Your task to perform on an android device: Do I have any events today? Image 0: 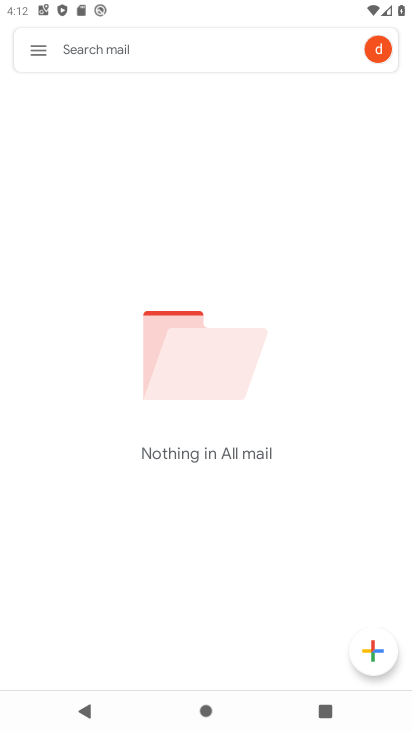
Step 0: press home button
Your task to perform on an android device: Do I have any events today? Image 1: 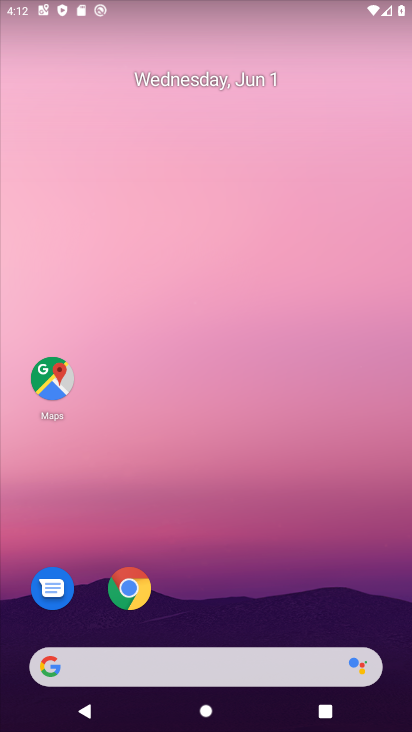
Step 1: drag from (243, 551) to (205, 208)
Your task to perform on an android device: Do I have any events today? Image 2: 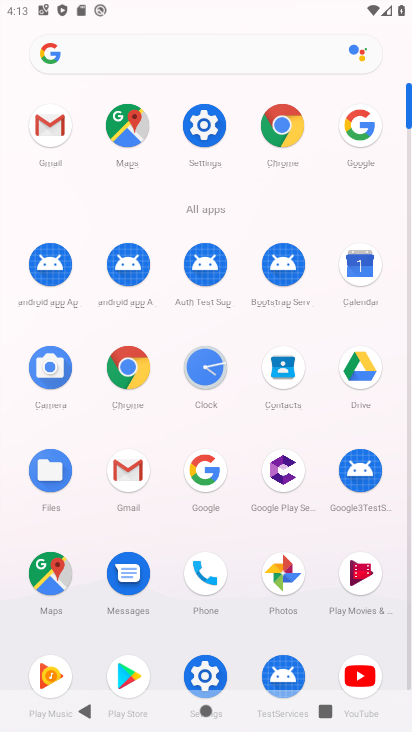
Step 2: click (357, 268)
Your task to perform on an android device: Do I have any events today? Image 3: 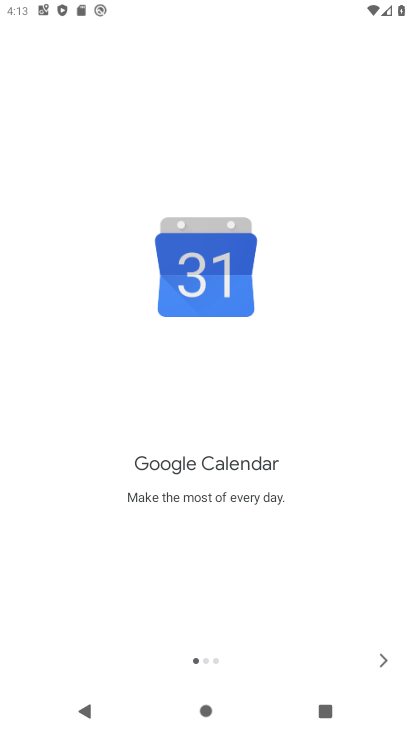
Step 3: click (379, 667)
Your task to perform on an android device: Do I have any events today? Image 4: 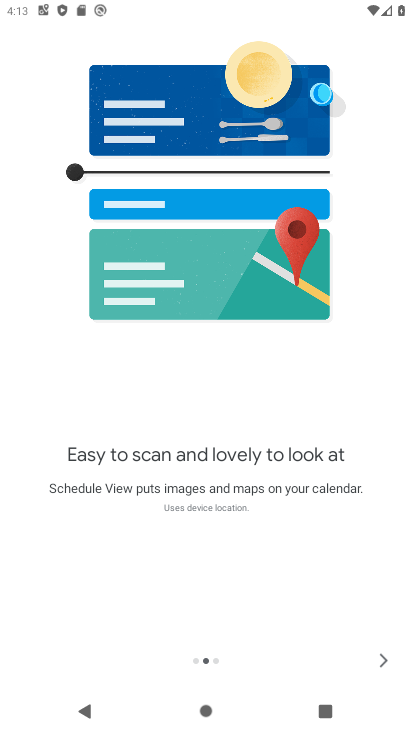
Step 4: click (379, 667)
Your task to perform on an android device: Do I have any events today? Image 5: 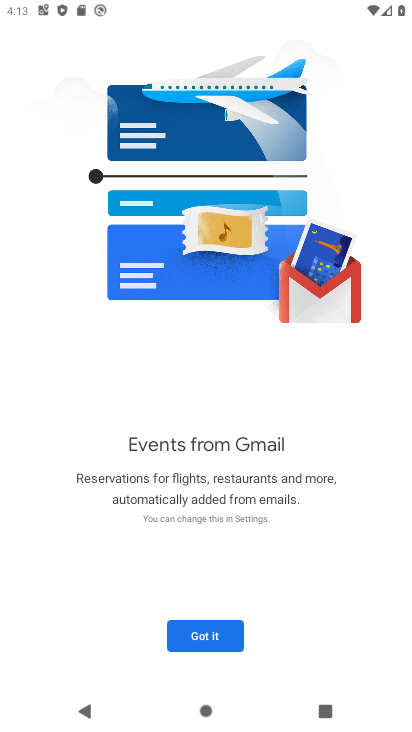
Step 5: click (220, 639)
Your task to perform on an android device: Do I have any events today? Image 6: 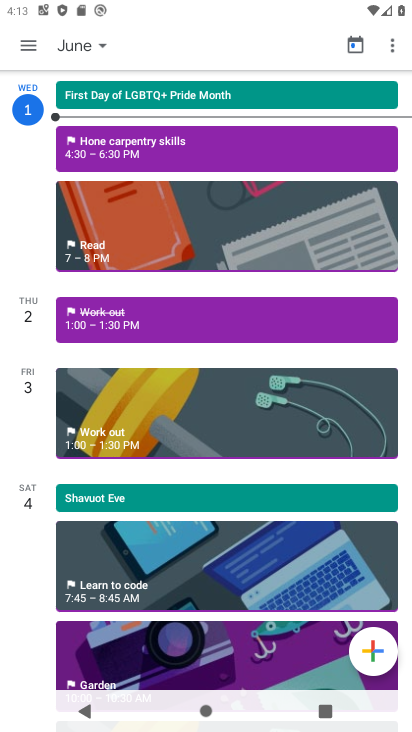
Step 6: task complete